Your task to perform on an android device: Open battery settings Image 0: 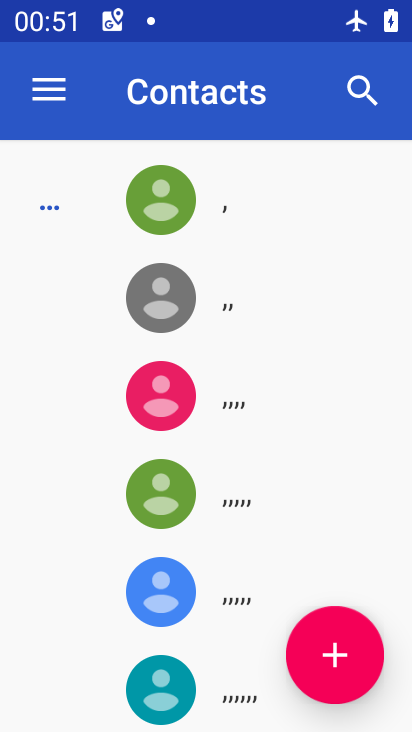
Step 0: press home button
Your task to perform on an android device: Open battery settings Image 1: 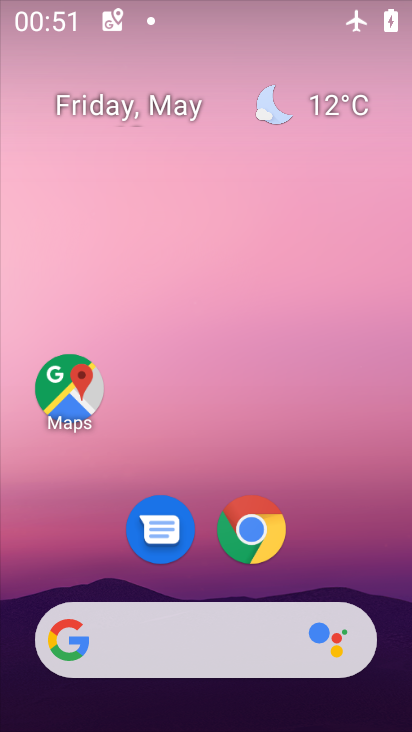
Step 1: drag from (267, 565) to (244, 189)
Your task to perform on an android device: Open battery settings Image 2: 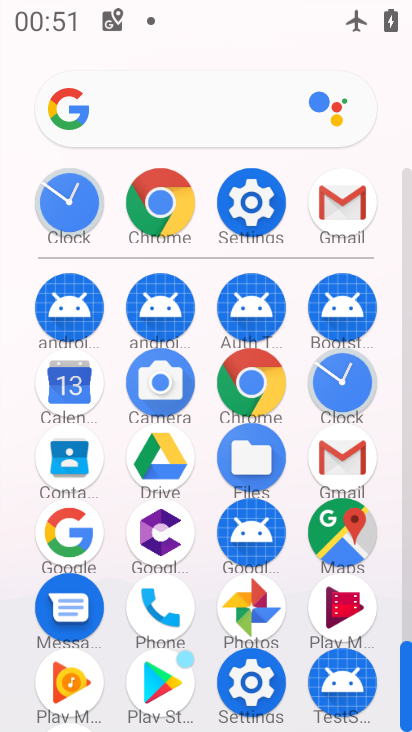
Step 2: click (250, 206)
Your task to perform on an android device: Open battery settings Image 3: 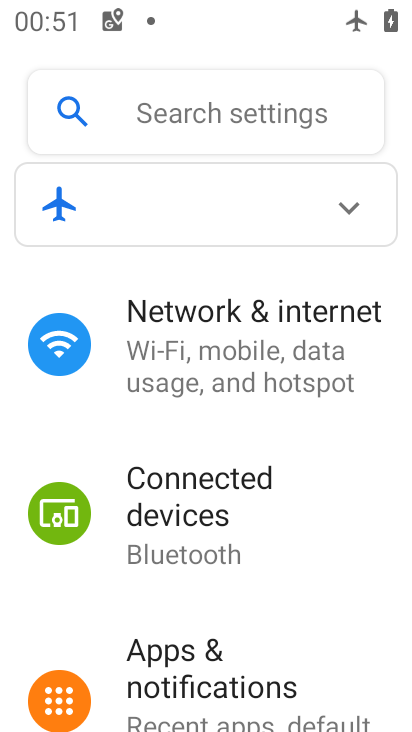
Step 3: drag from (229, 623) to (275, 126)
Your task to perform on an android device: Open battery settings Image 4: 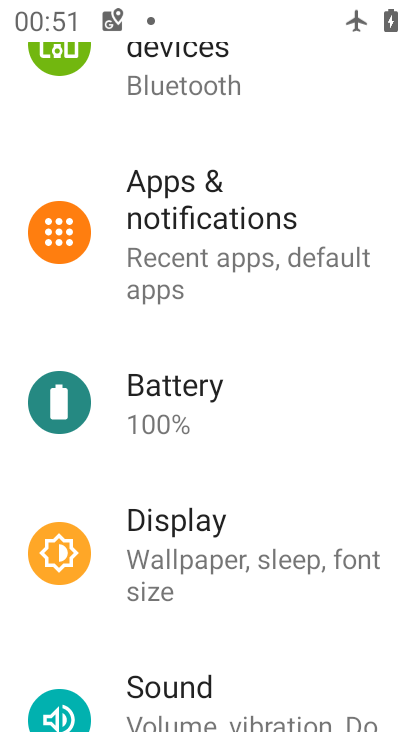
Step 4: click (180, 413)
Your task to perform on an android device: Open battery settings Image 5: 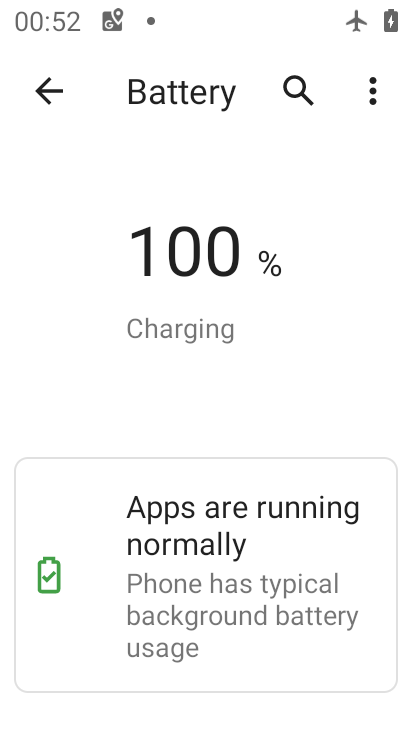
Step 5: task complete